Your task to perform on an android device: Add "bose soundlink" to the cart on walmart, then select checkout. Image 0: 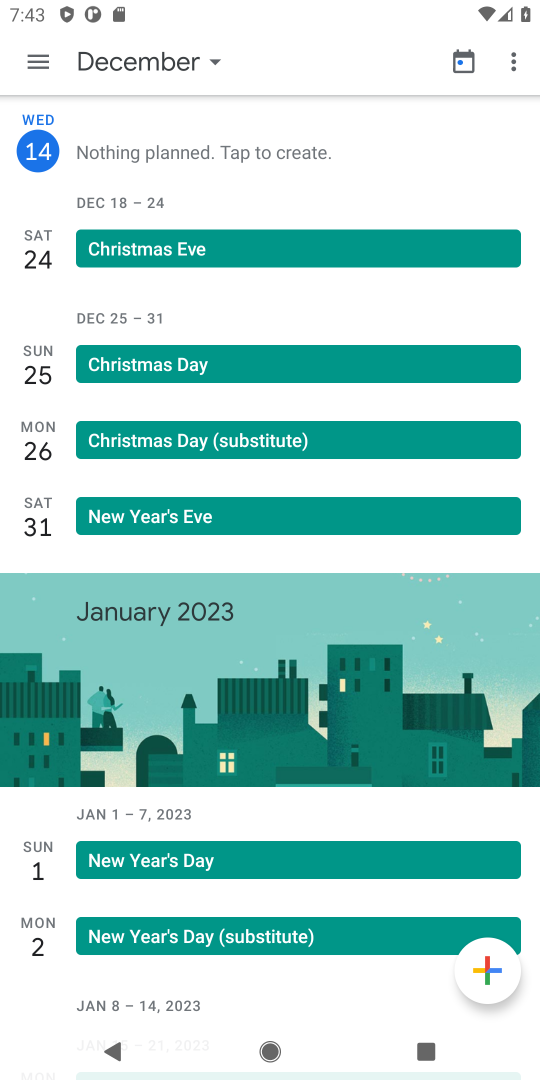
Step 0: press home button
Your task to perform on an android device: Add "bose soundlink" to the cart on walmart, then select checkout. Image 1: 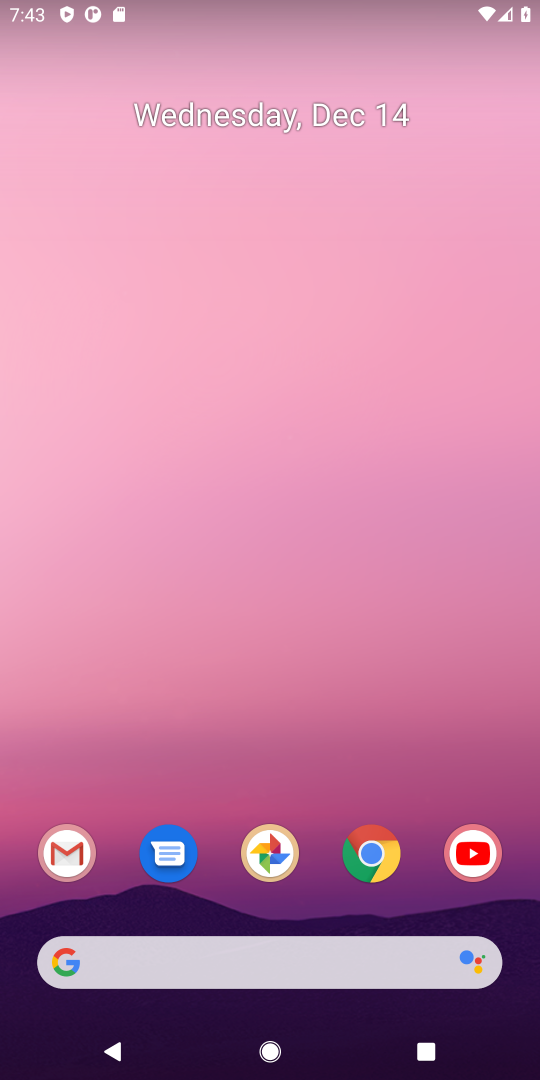
Step 1: click (378, 852)
Your task to perform on an android device: Add "bose soundlink" to the cart on walmart, then select checkout. Image 2: 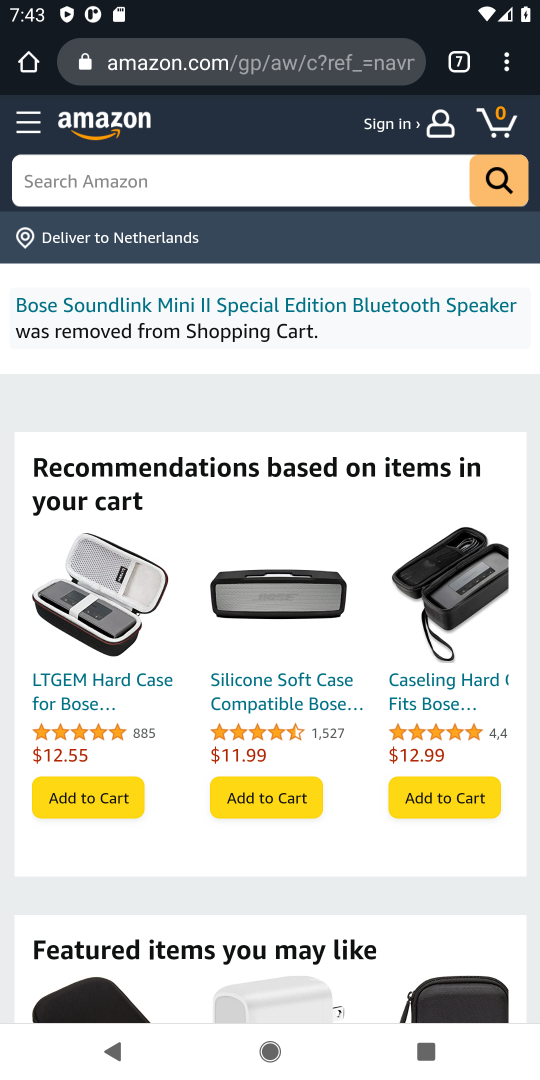
Step 2: click (470, 60)
Your task to perform on an android device: Add "bose soundlink" to the cart on walmart, then select checkout. Image 3: 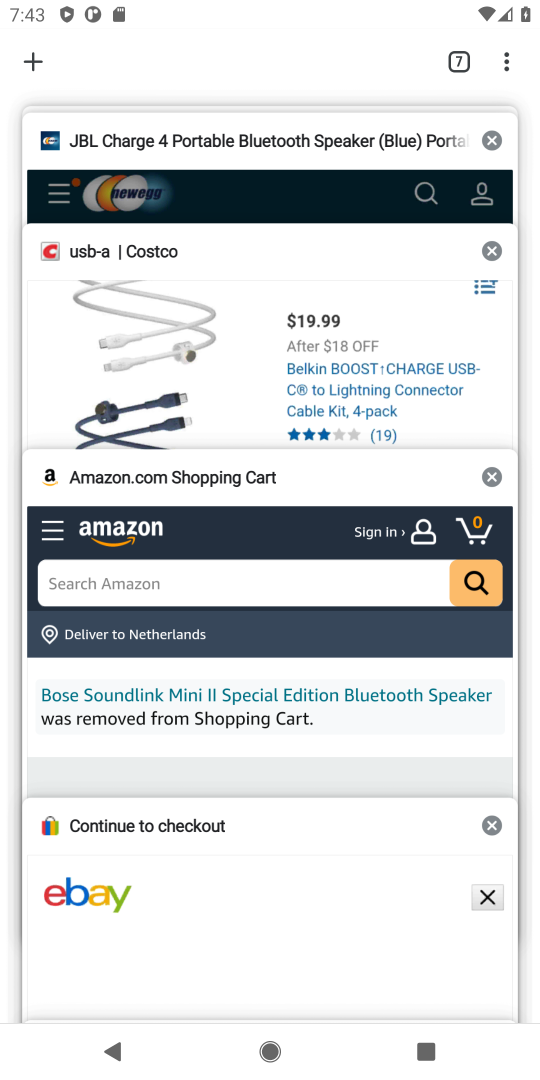
Step 3: drag from (327, 148) to (291, 480)
Your task to perform on an android device: Add "bose soundlink" to the cart on walmart, then select checkout. Image 4: 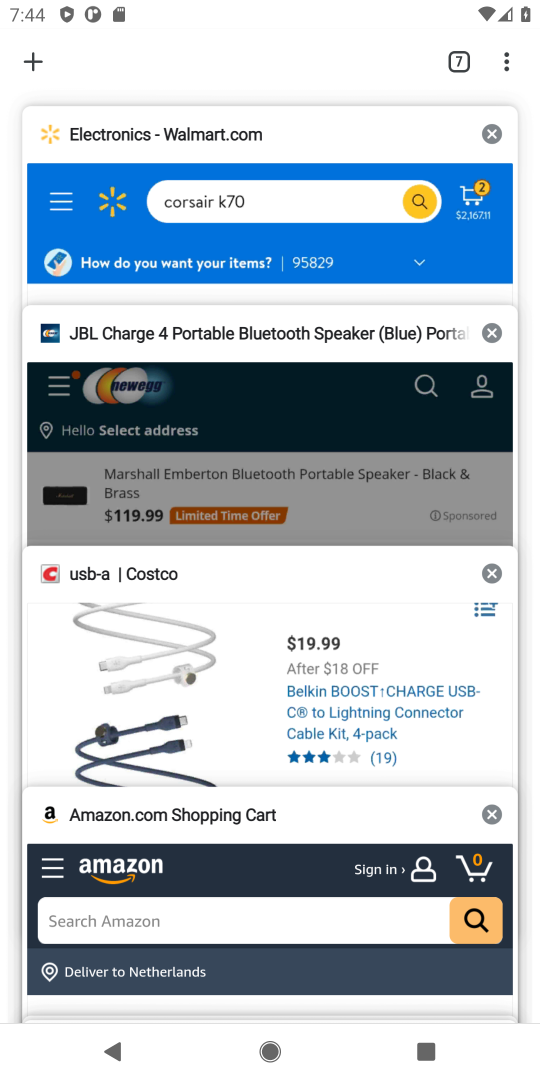
Step 4: click (380, 223)
Your task to perform on an android device: Add "bose soundlink" to the cart on walmart, then select checkout. Image 5: 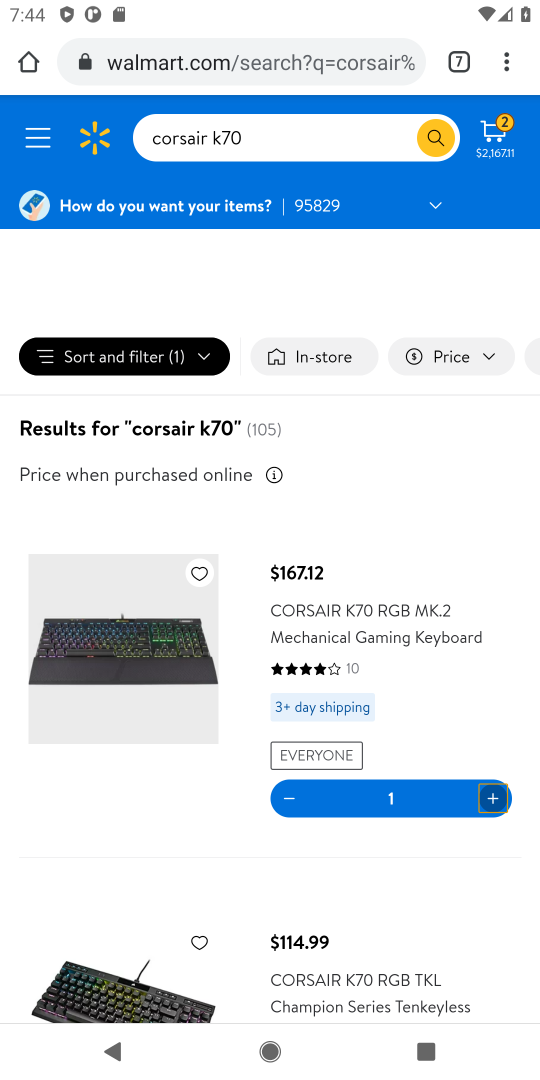
Step 5: click (291, 154)
Your task to perform on an android device: Add "bose soundlink" to the cart on walmart, then select checkout. Image 6: 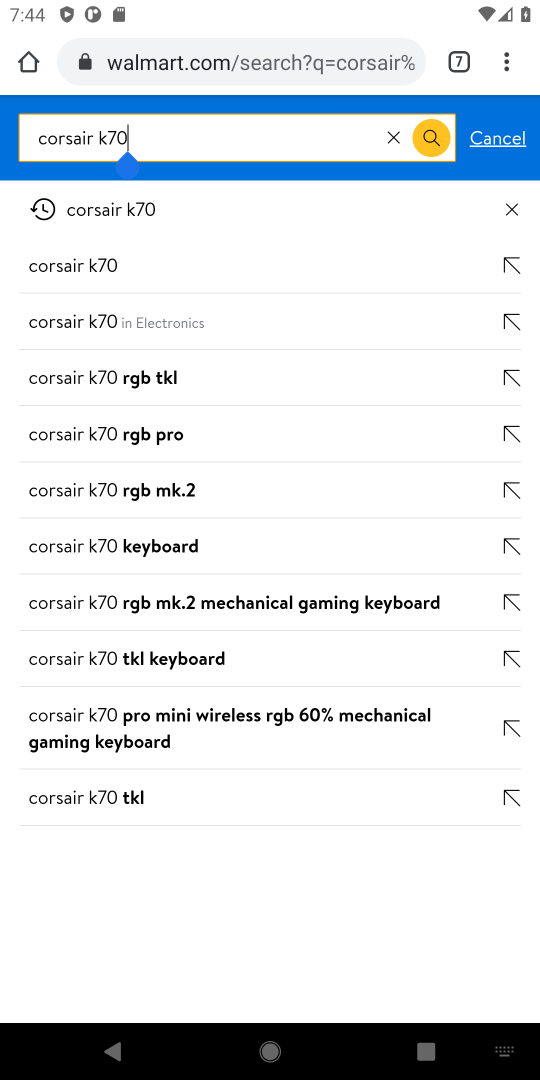
Step 6: click (393, 141)
Your task to perform on an android device: Add "bose soundlink" to the cart on walmart, then select checkout. Image 7: 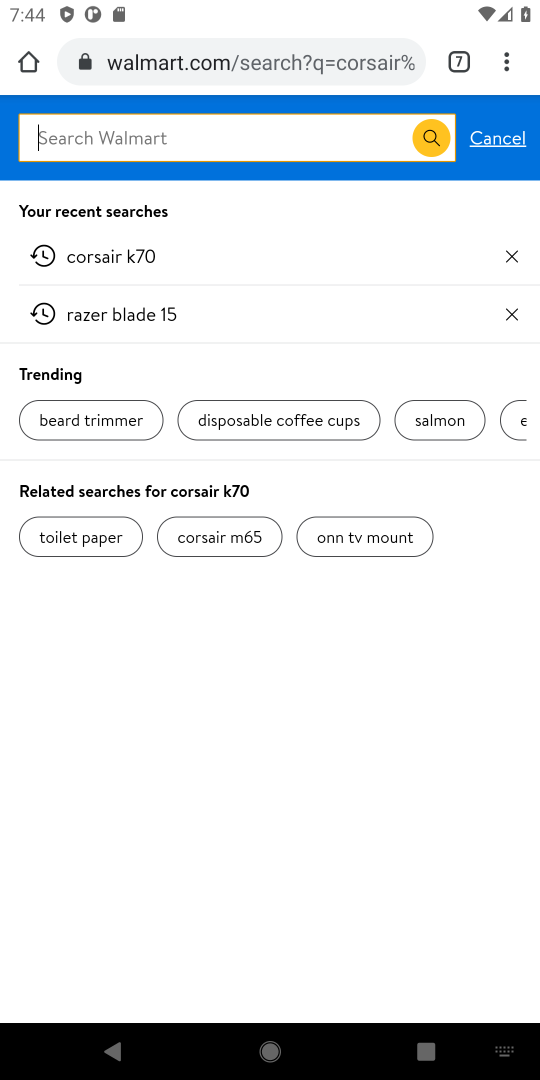
Step 7: type "bose soundlink"
Your task to perform on an android device: Add "bose soundlink" to the cart on walmart, then select checkout. Image 8: 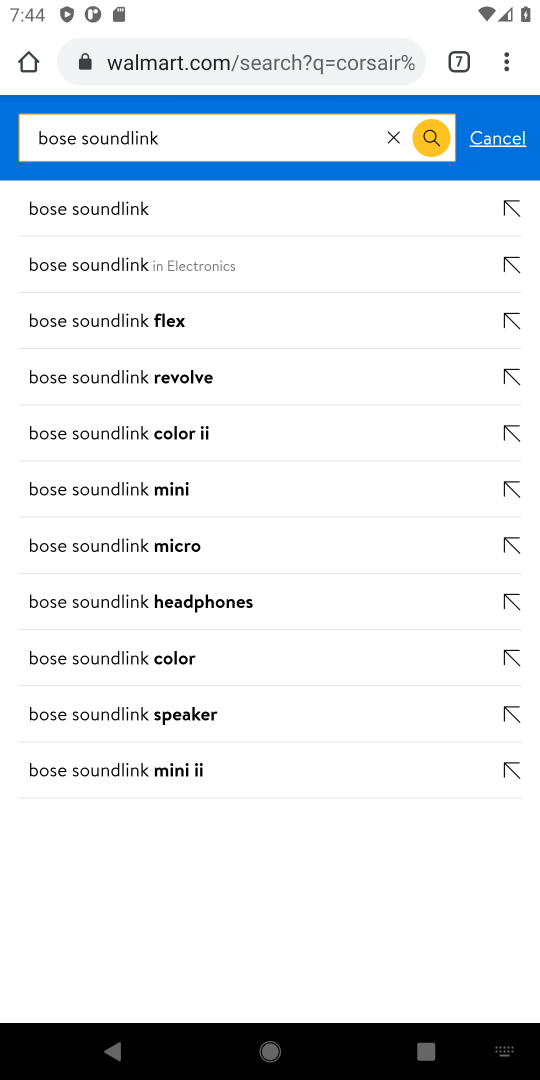
Step 8: click (129, 265)
Your task to perform on an android device: Add "bose soundlink" to the cart on walmart, then select checkout. Image 9: 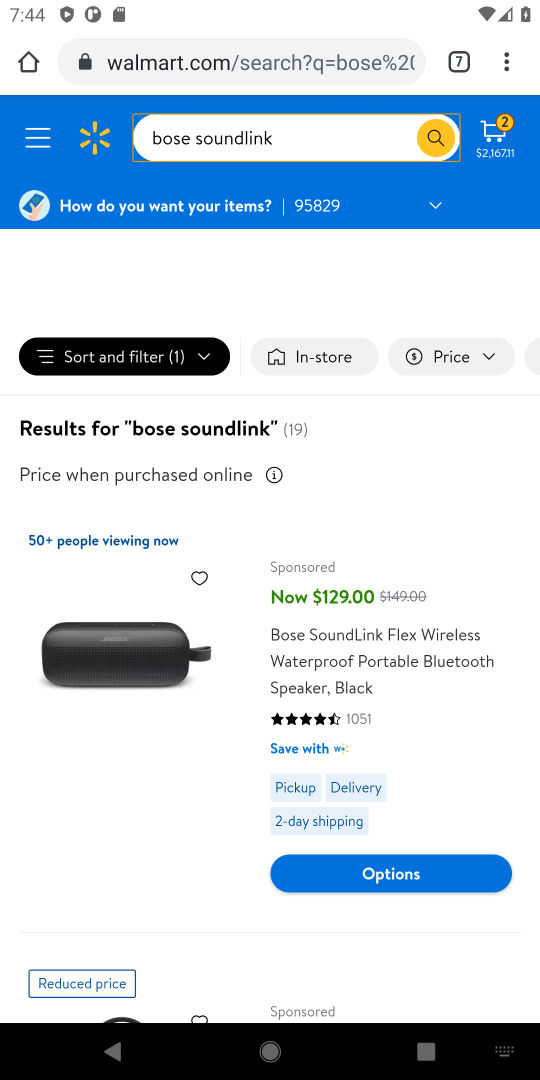
Step 9: click (416, 639)
Your task to perform on an android device: Add "bose soundlink" to the cart on walmart, then select checkout. Image 10: 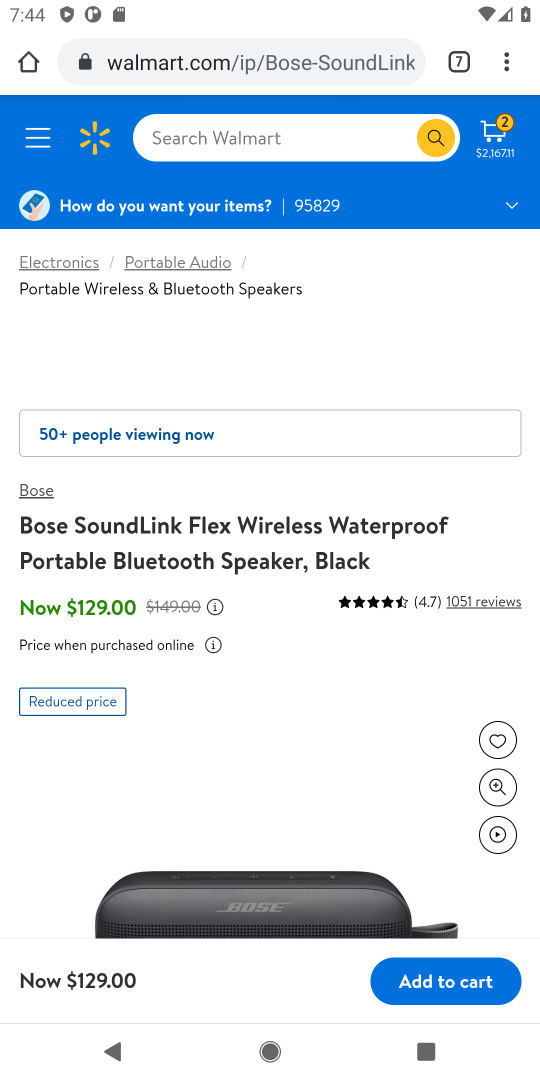
Step 10: click (441, 980)
Your task to perform on an android device: Add "bose soundlink" to the cart on walmart, then select checkout. Image 11: 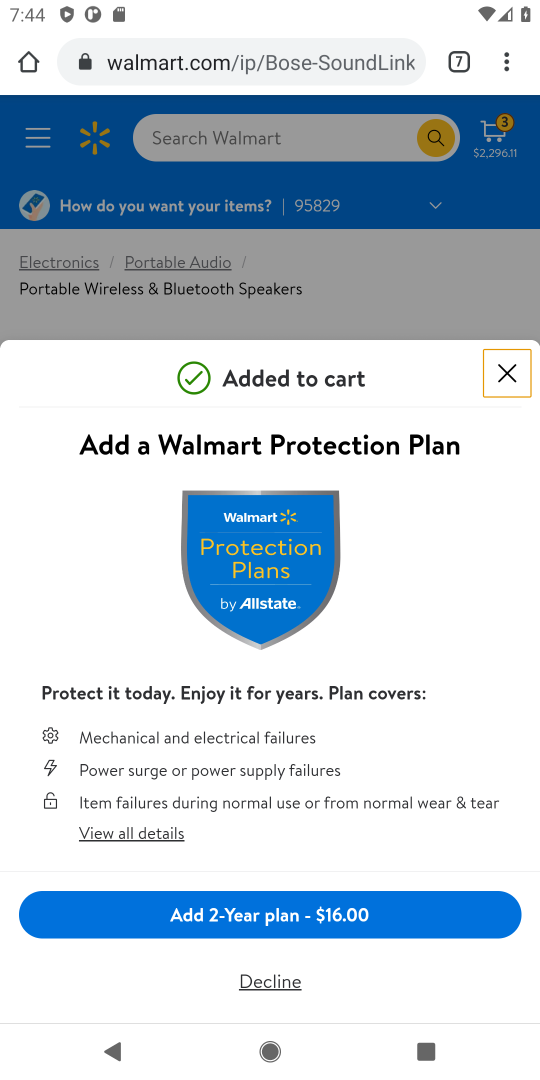
Step 11: task complete